Your task to perform on an android device: turn on the 12-hour format for clock Image 0: 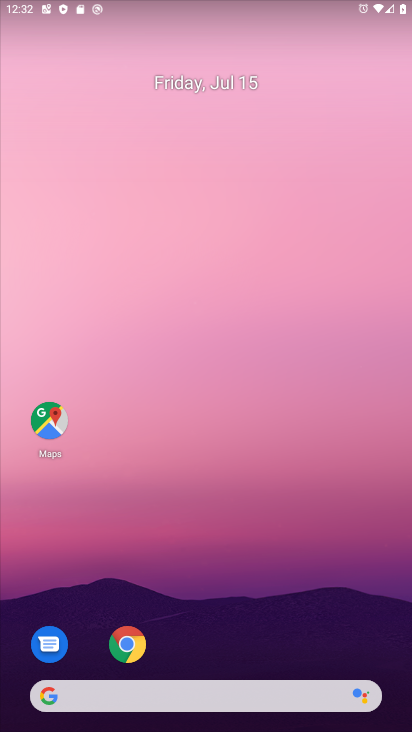
Step 0: drag from (348, 627) to (196, 17)
Your task to perform on an android device: turn on the 12-hour format for clock Image 1: 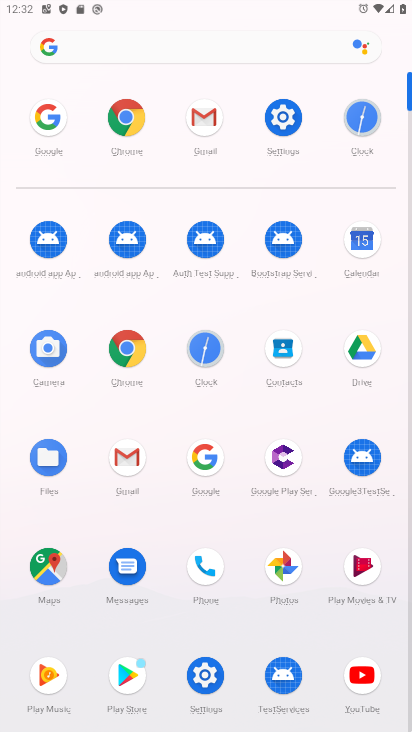
Step 1: click (183, 343)
Your task to perform on an android device: turn on the 12-hour format for clock Image 2: 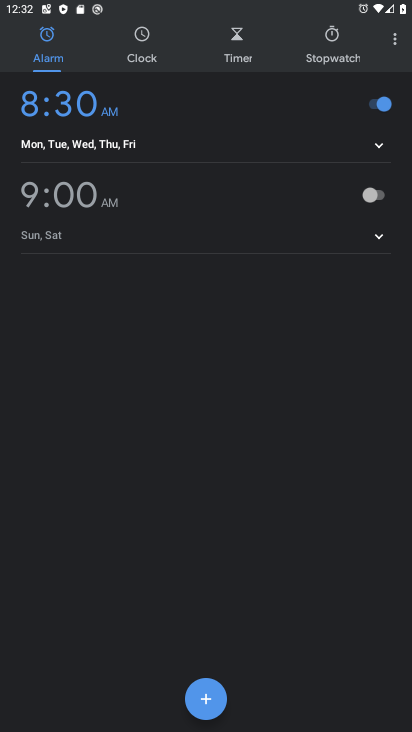
Step 2: click (393, 38)
Your task to perform on an android device: turn on the 12-hour format for clock Image 3: 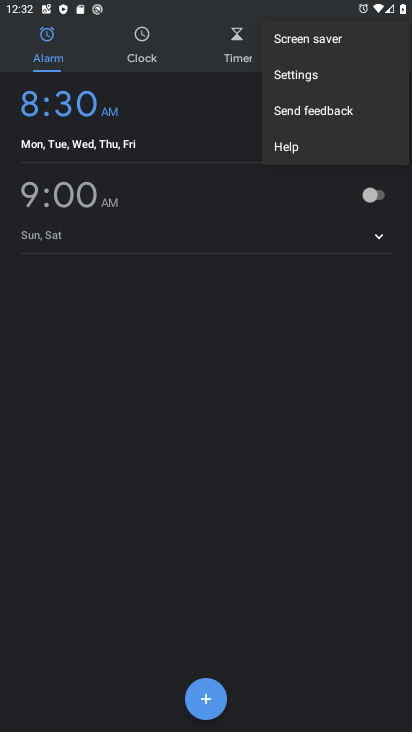
Step 3: click (307, 79)
Your task to perform on an android device: turn on the 12-hour format for clock Image 4: 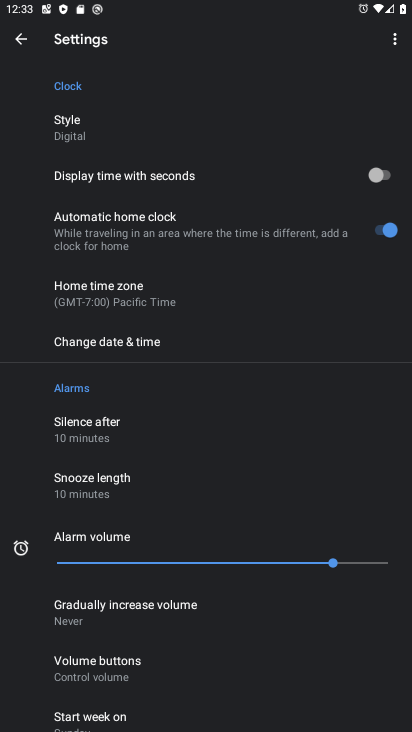
Step 4: click (134, 347)
Your task to perform on an android device: turn on the 12-hour format for clock Image 5: 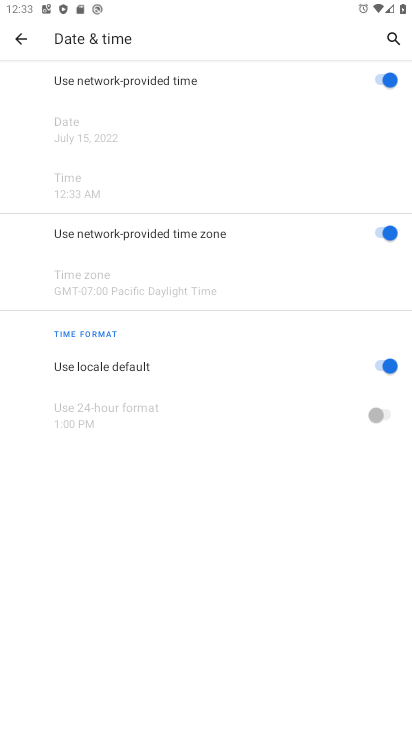
Step 5: task complete